Your task to perform on an android device: turn off improve location accuracy Image 0: 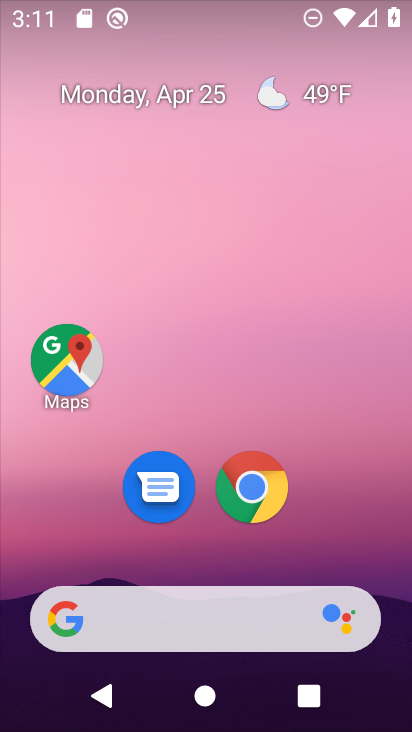
Step 0: drag from (361, 552) to (356, 61)
Your task to perform on an android device: turn off improve location accuracy Image 1: 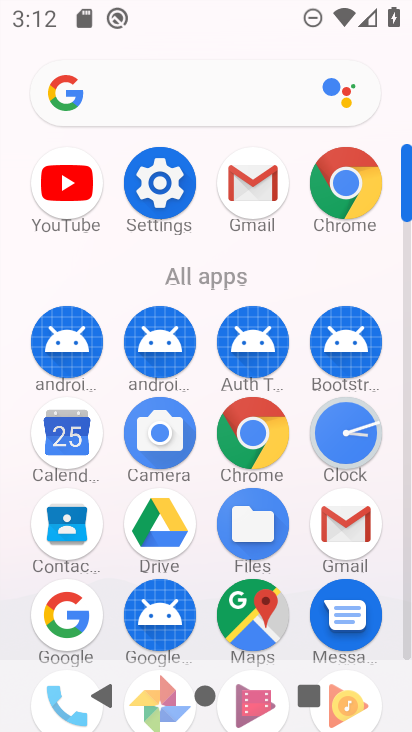
Step 1: click (159, 193)
Your task to perform on an android device: turn off improve location accuracy Image 2: 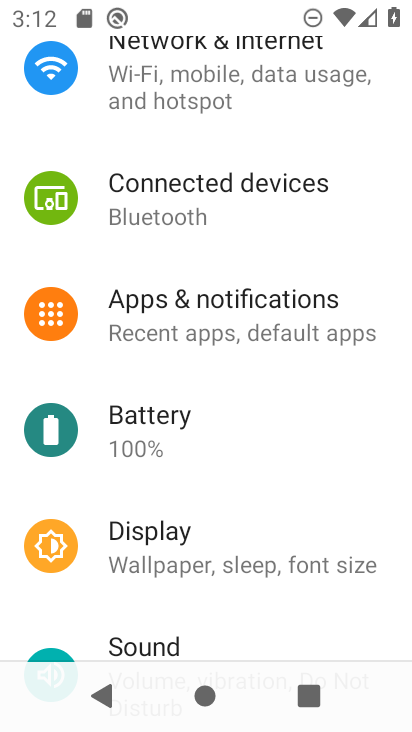
Step 2: drag from (376, 571) to (389, 266)
Your task to perform on an android device: turn off improve location accuracy Image 3: 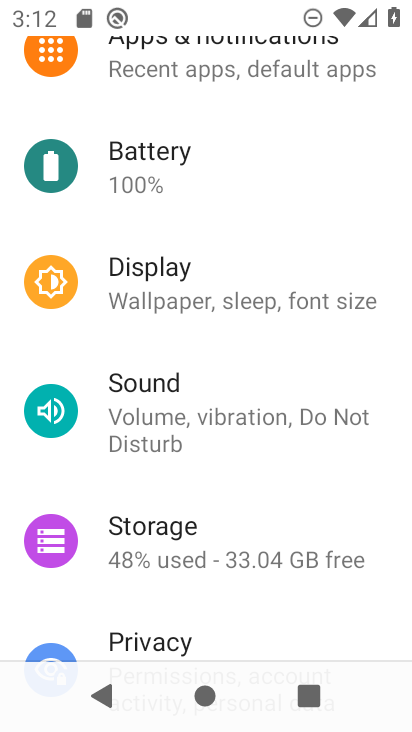
Step 3: drag from (262, 552) to (309, 134)
Your task to perform on an android device: turn off improve location accuracy Image 4: 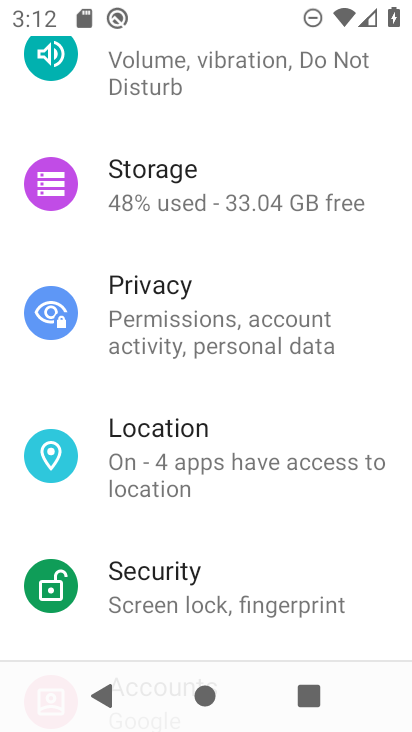
Step 4: click (156, 453)
Your task to perform on an android device: turn off improve location accuracy Image 5: 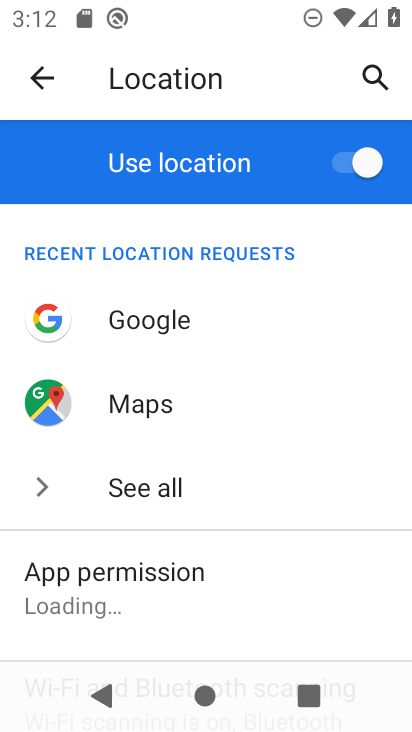
Step 5: drag from (263, 555) to (273, 125)
Your task to perform on an android device: turn off improve location accuracy Image 6: 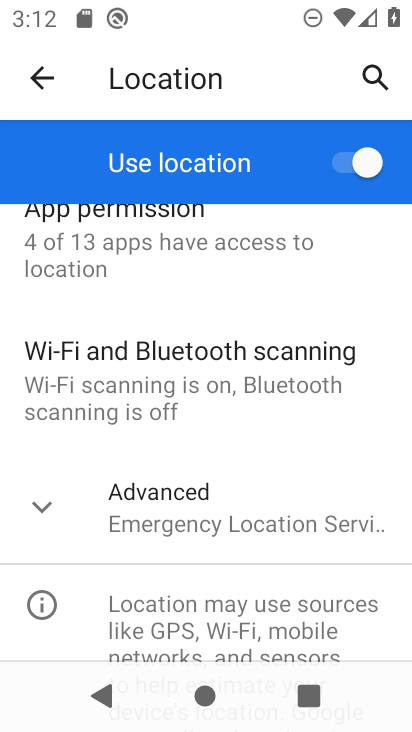
Step 6: click (34, 516)
Your task to perform on an android device: turn off improve location accuracy Image 7: 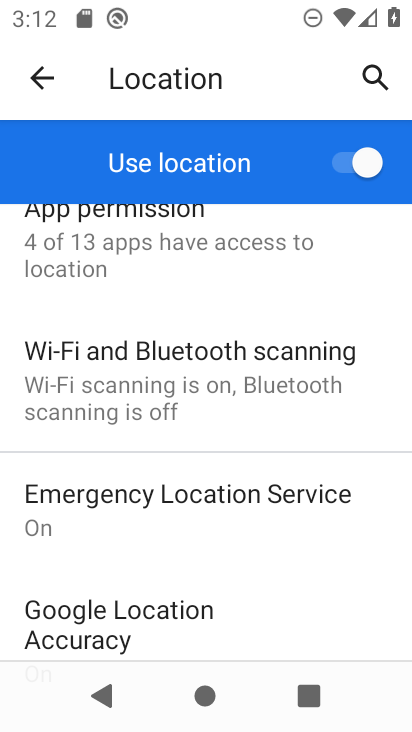
Step 7: click (131, 618)
Your task to perform on an android device: turn off improve location accuracy Image 8: 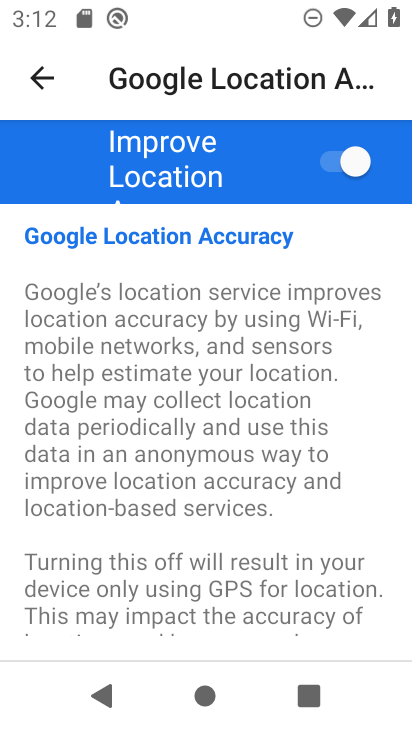
Step 8: click (348, 171)
Your task to perform on an android device: turn off improve location accuracy Image 9: 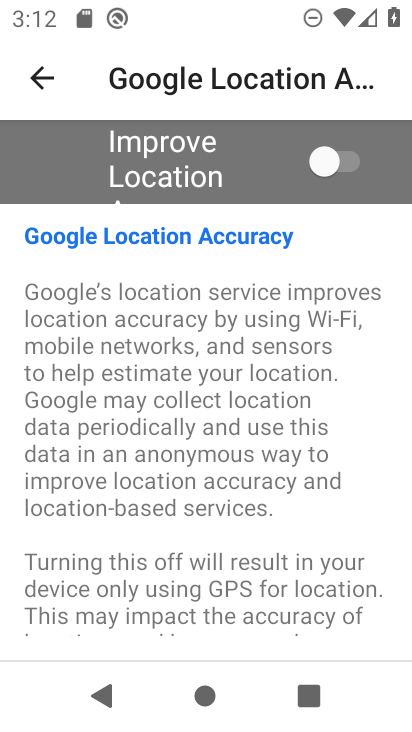
Step 9: task complete